Your task to perform on an android device: delete a single message in the gmail app Image 0: 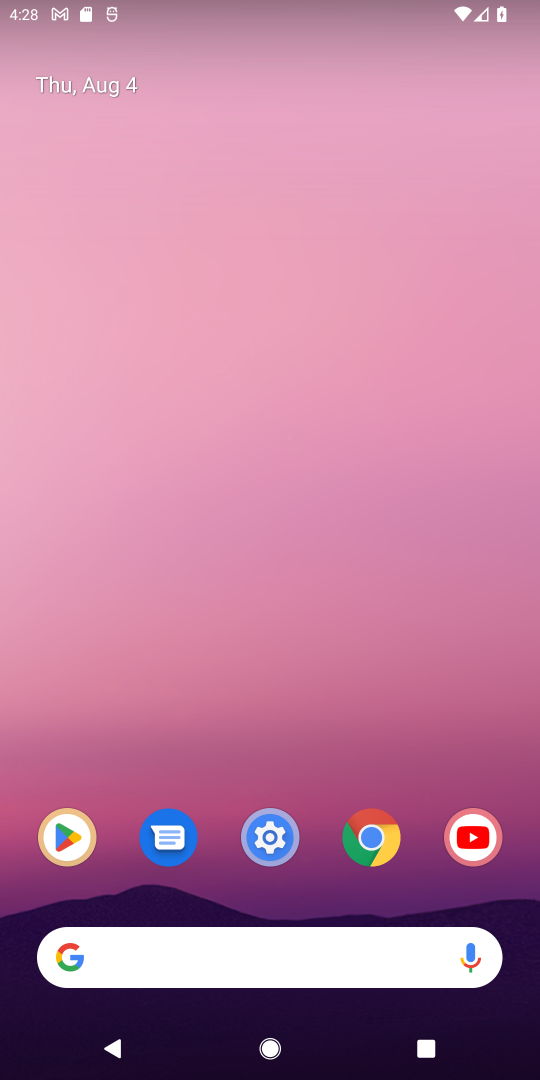
Step 0: drag from (221, 893) to (137, 274)
Your task to perform on an android device: delete a single message in the gmail app Image 1: 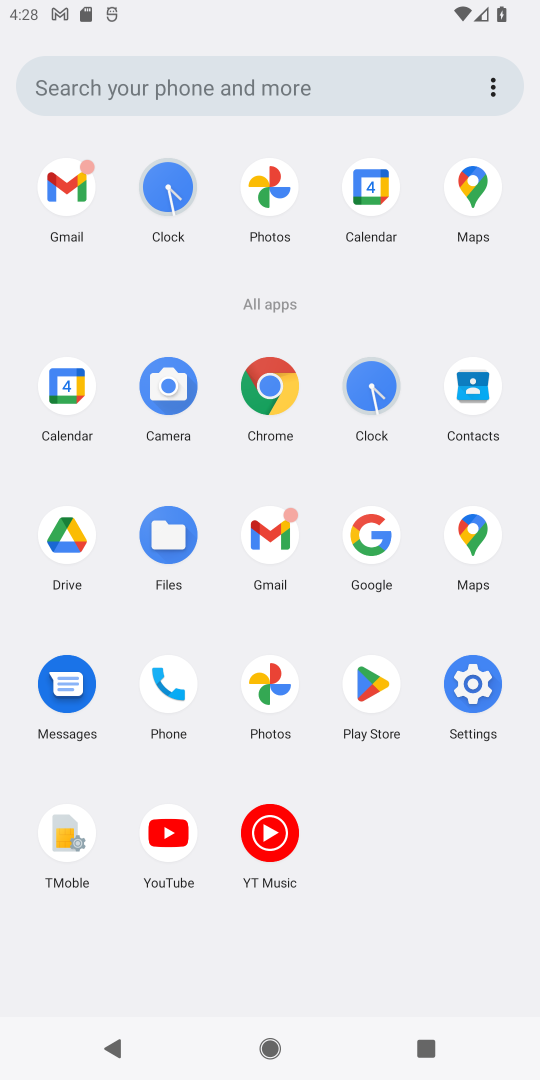
Step 1: click (278, 537)
Your task to perform on an android device: delete a single message in the gmail app Image 2: 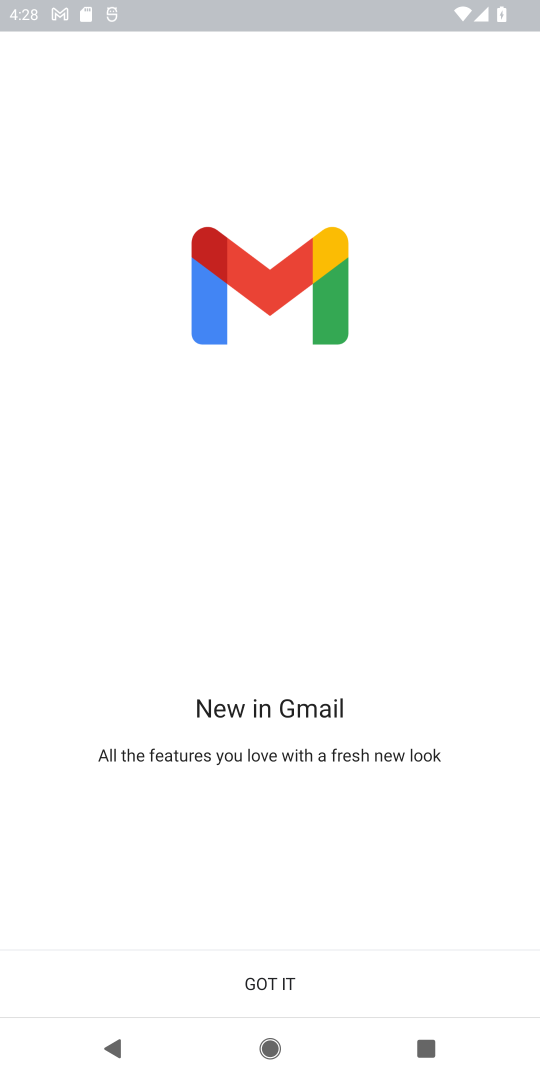
Step 2: click (485, 976)
Your task to perform on an android device: delete a single message in the gmail app Image 3: 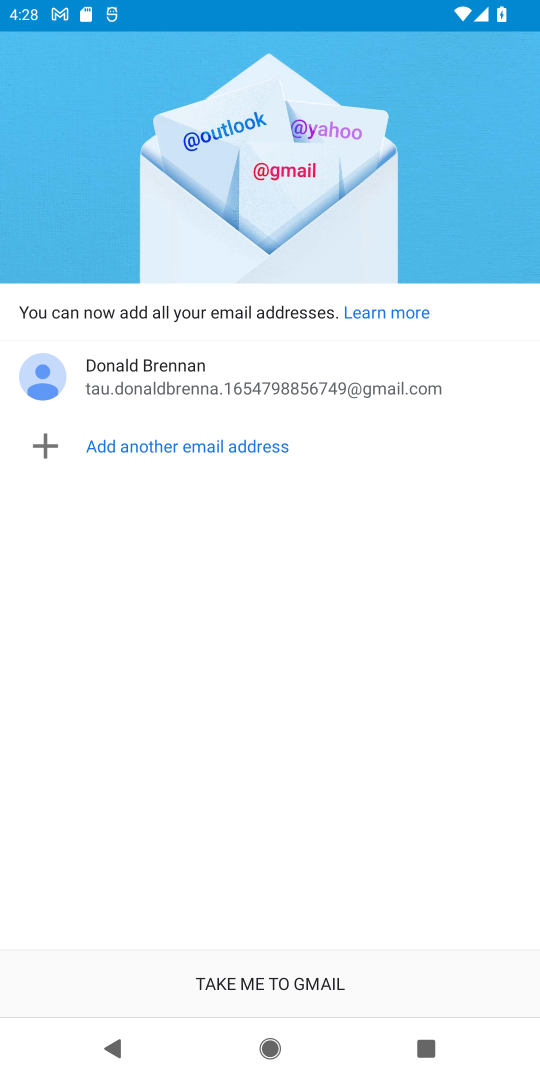
Step 3: click (485, 976)
Your task to perform on an android device: delete a single message in the gmail app Image 4: 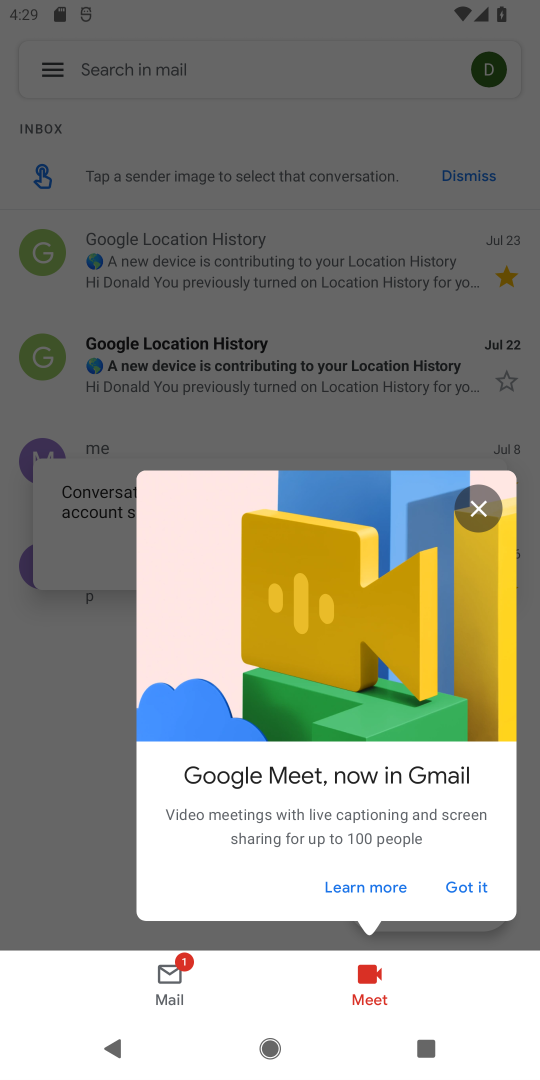
Step 4: click (59, 71)
Your task to perform on an android device: delete a single message in the gmail app Image 5: 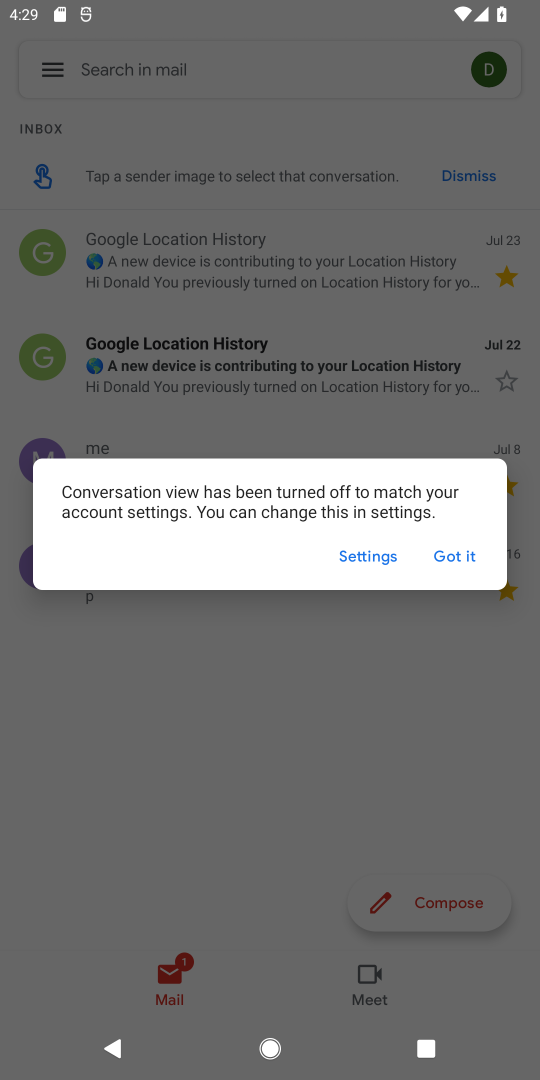
Step 5: click (442, 543)
Your task to perform on an android device: delete a single message in the gmail app Image 6: 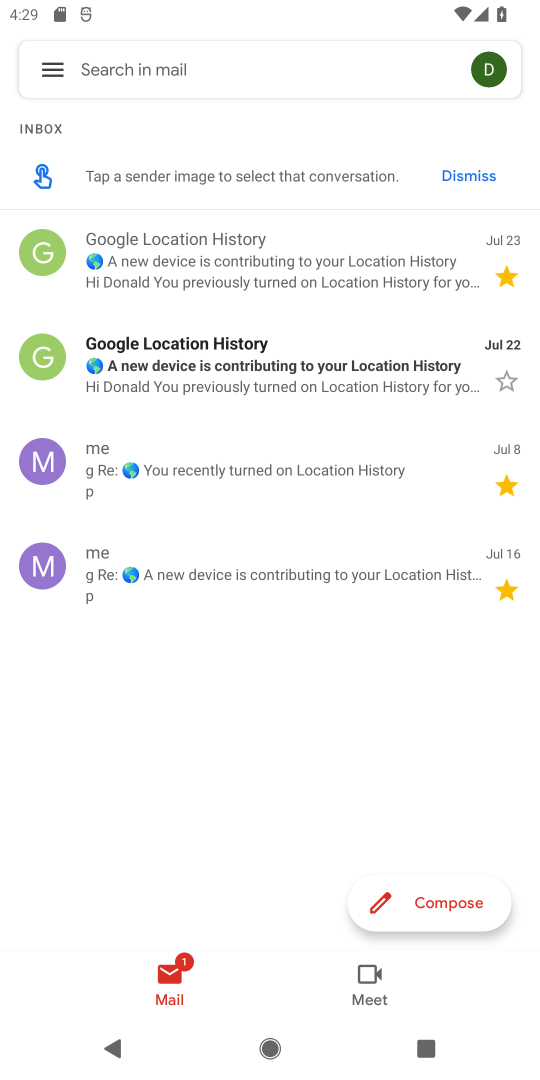
Step 6: click (52, 77)
Your task to perform on an android device: delete a single message in the gmail app Image 7: 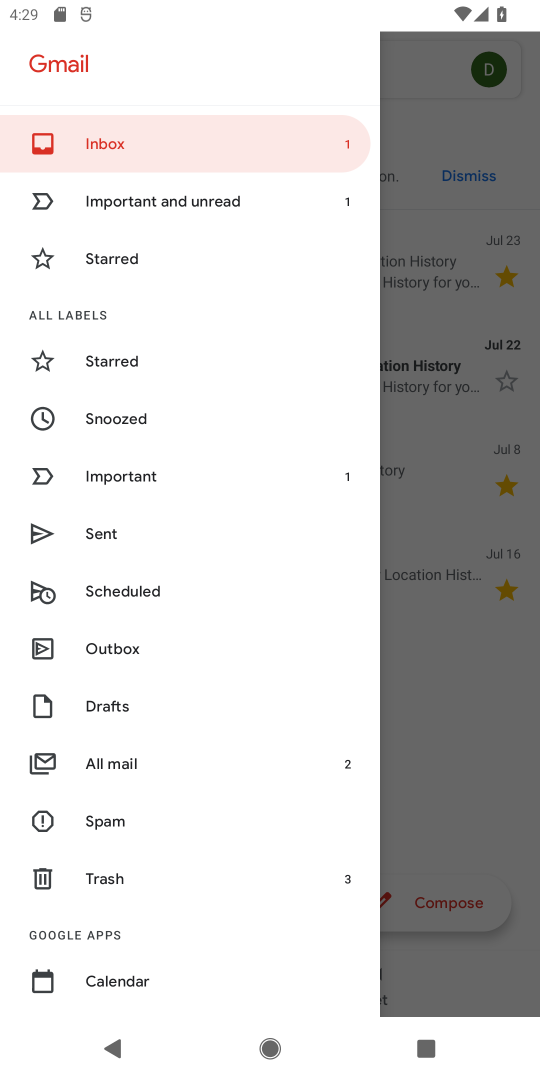
Step 7: click (213, 750)
Your task to perform on an android device: delete a single message in the gmail app Image 8: 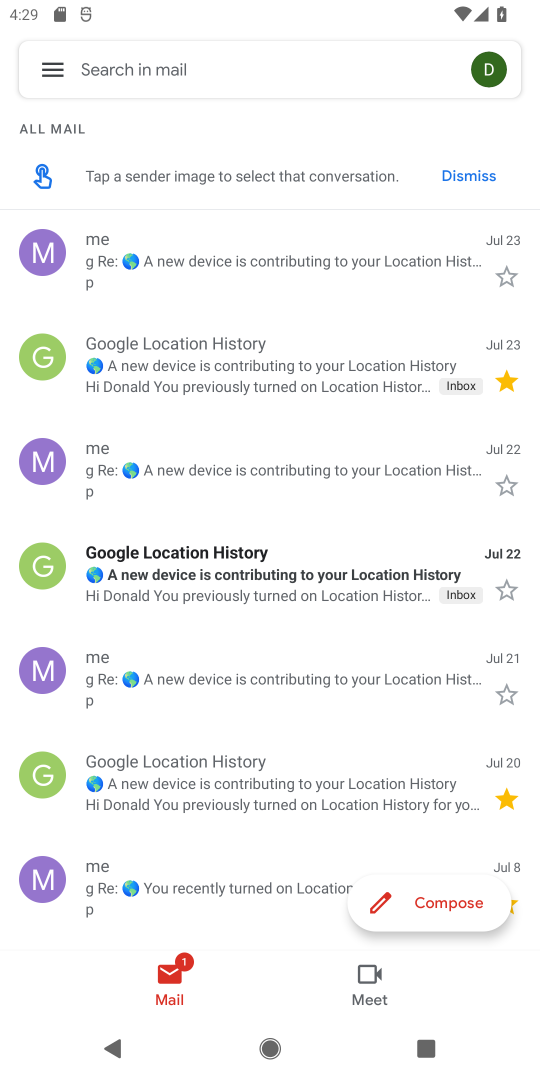
Step 8: click (49, 254)
Your task to perform on an android device: delete a single message in the gmail app Image 9: 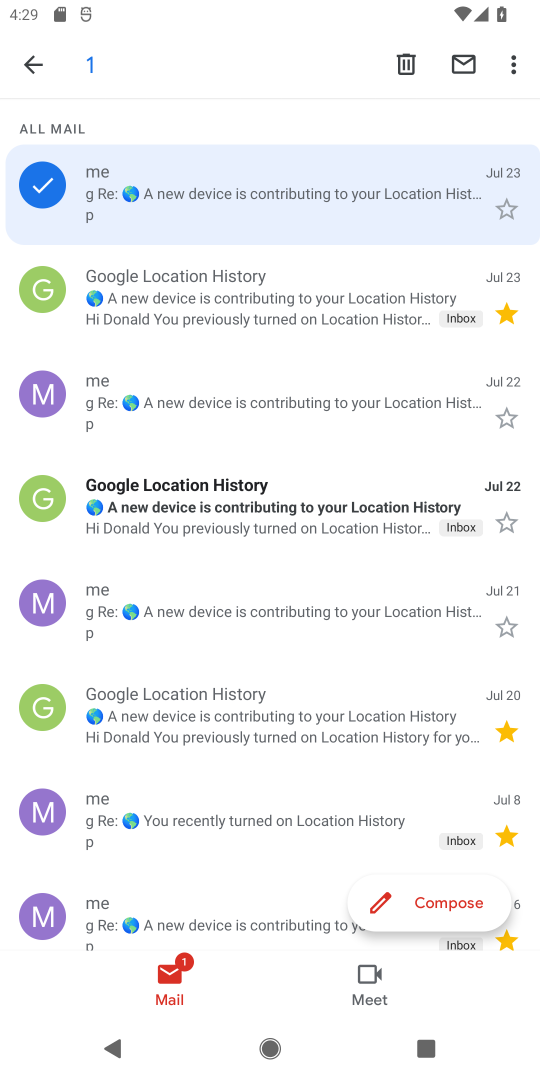
Step 9: click (409, 61)
Your task to perform on an android device: delete a single message in the gmail app Image 10: 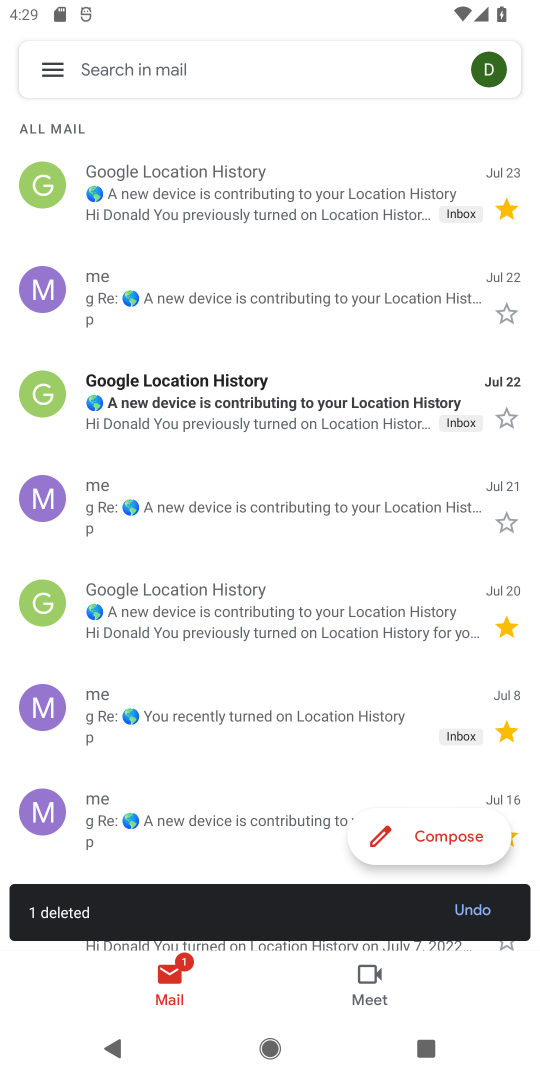
Step 10: task complete